Your task to perform on an android device: check the backup settings in the google photos Image 0: 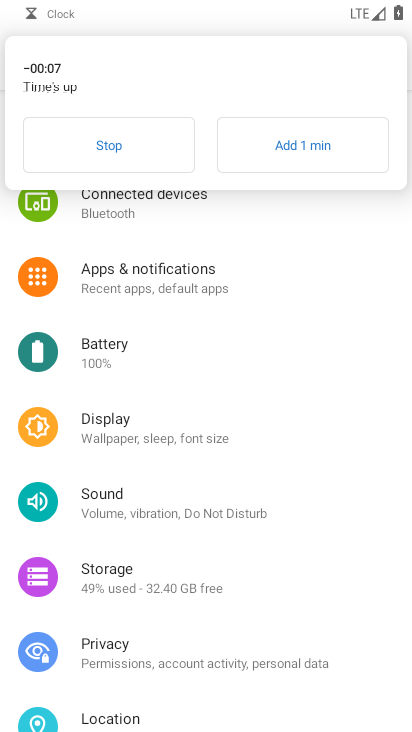
Step 0: press home button
Your task to perform on an android device: check the backup settings in the google photos Image 1: 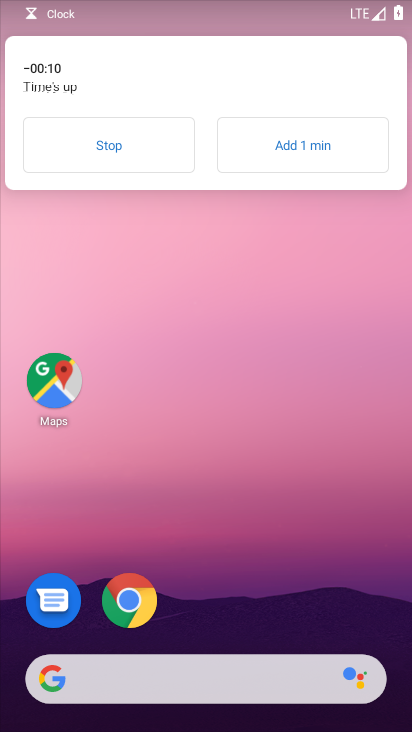
Step 1: click (129, 140)
Your task to perform on an android device: check the backup settings in the google photos Image 2: 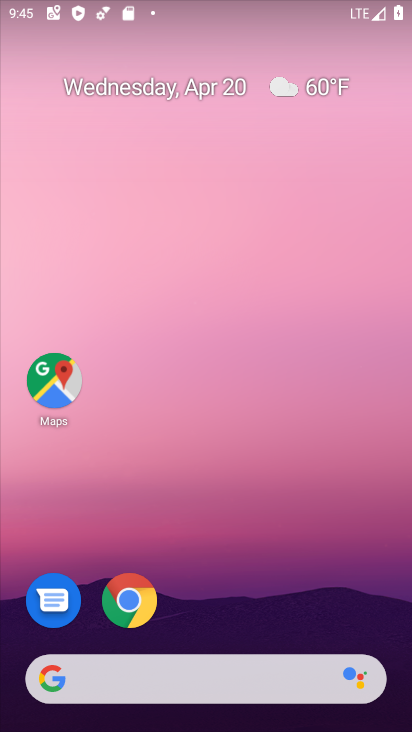
Step 2: drag from (201, 629) to (167, 94)
Your task to perform on an android device: check the backup settings in the google photos Image 3: 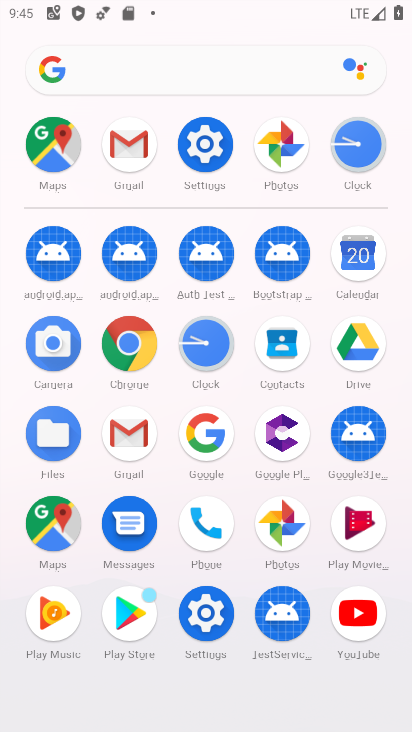
Step 3: click (278, 140)
Your task to perform on an android device: check the backup settings in the google photos Image 4: 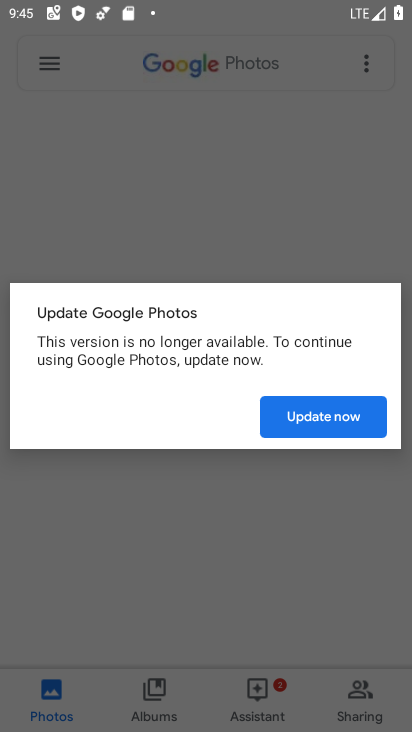
Step 4: click (360, 409)
Your task to perform on an android device: check the backup settings in the google photos Image 5: 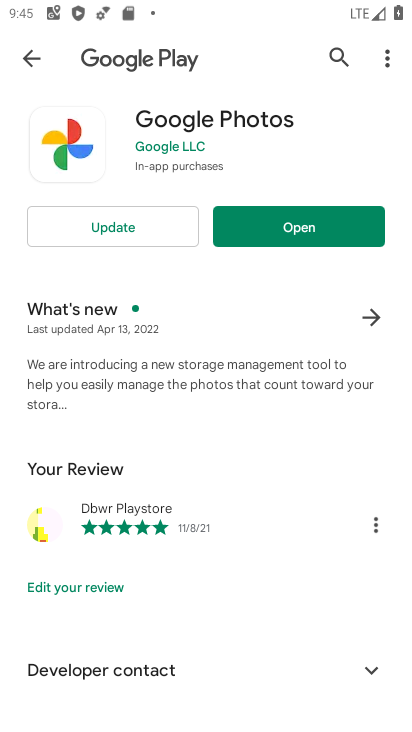
Step 5: click (275, 232)
Your task to perform on an android device: check the backup settings in the google photos Image 6: 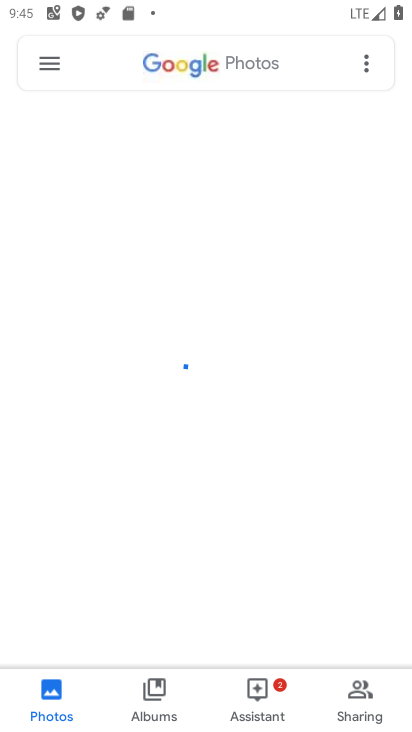
Step 6: click (55, 66)
Your task to perform on an android device: check the backup settings in the google photos Image 7: 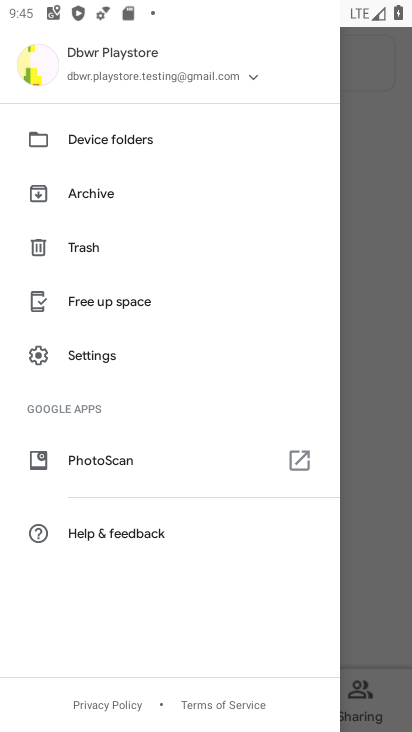
Step 7: click (121, 362)
Your task to perform on an android device: check the backup settings in the google photos Image 8: 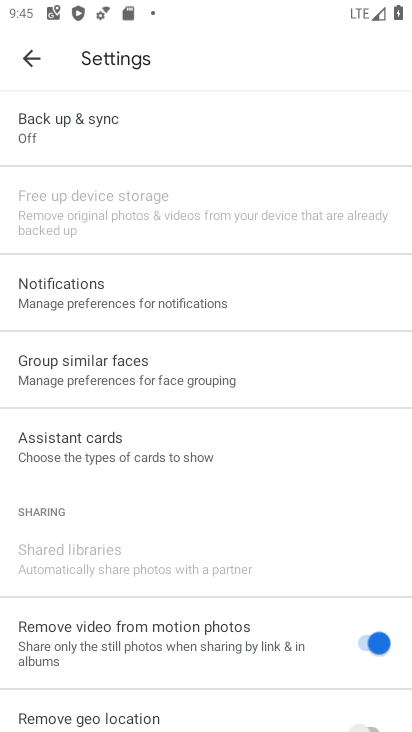
Step 8: click (137, 122)
Your task to perform on an android device: check the backup settings in the google photos Image 9: 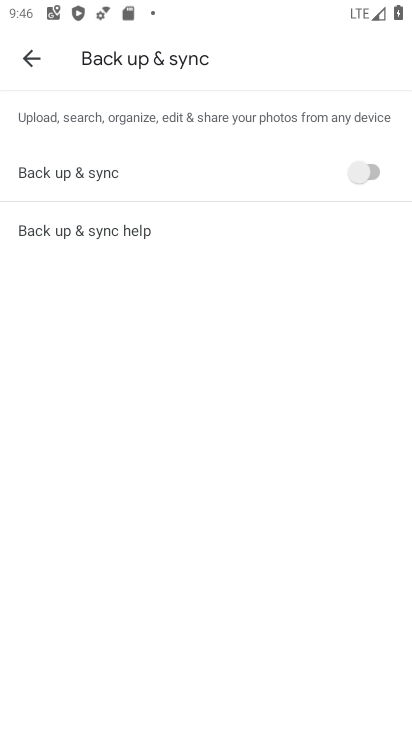
Step 9: click (29, 67)
Your task to perform on an android device: check the backup settings in the google photos Image 10: 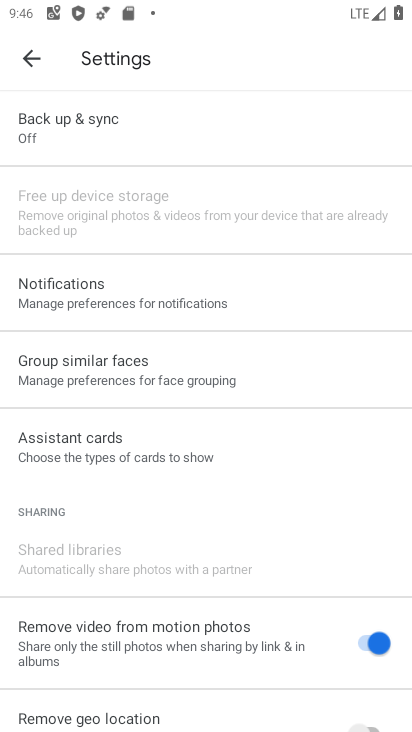
Step 10: click (215, 105)
Your task to perform on an android device: check the backup settings in the google photos Image 11: 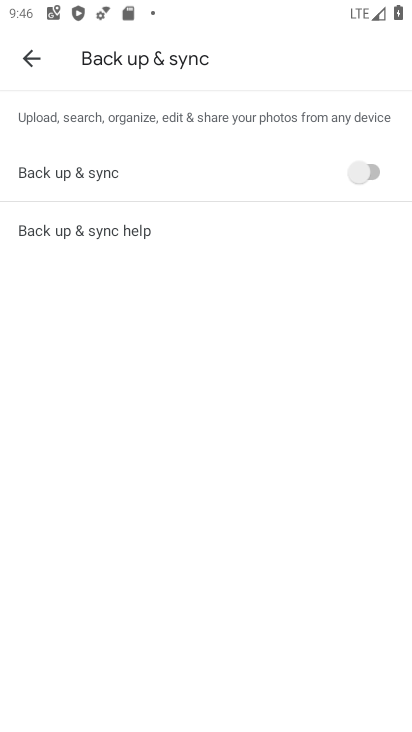
Step 11: task complete